Your task to perform on an android device: Search for sushi restaurants on Maps Image 0: 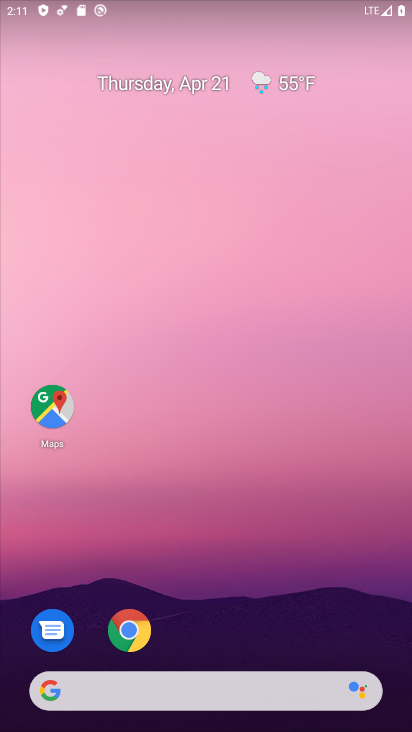
Step 0: click (217, 631)
Your task to perform on an android device: Search for sushi restaurants on Maps Image 1: 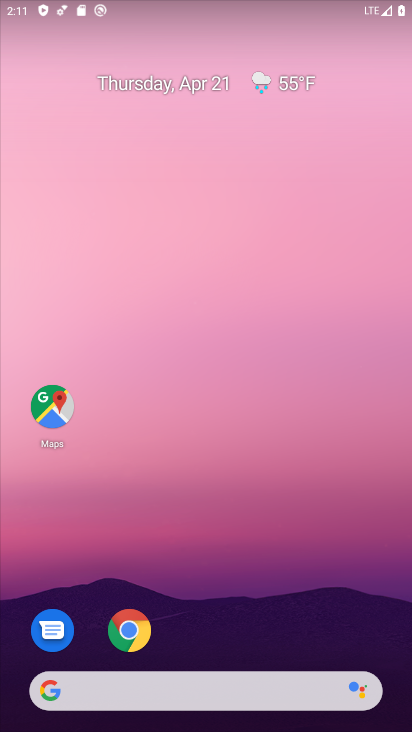
Step 1: click (61, 408)
Your task to perform on an android device: Search for sushi restaurants on Maps Image 2: 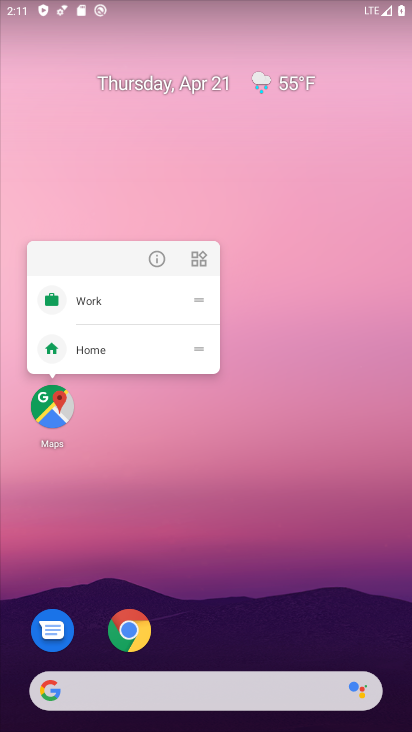
Step 2: click (55, 417)
Your task to perform on an android device: Search for sushi restaurants on Maps Image 3: 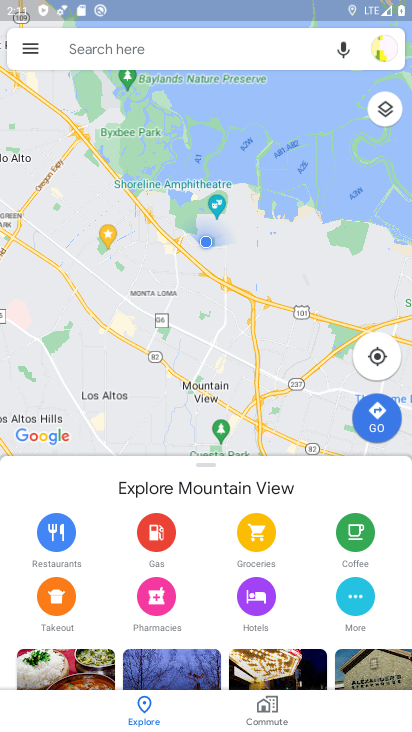
Step 3: click (217, 59)
Your task to perform on an android device: Search for sushi restaurants on Maps Image 4: 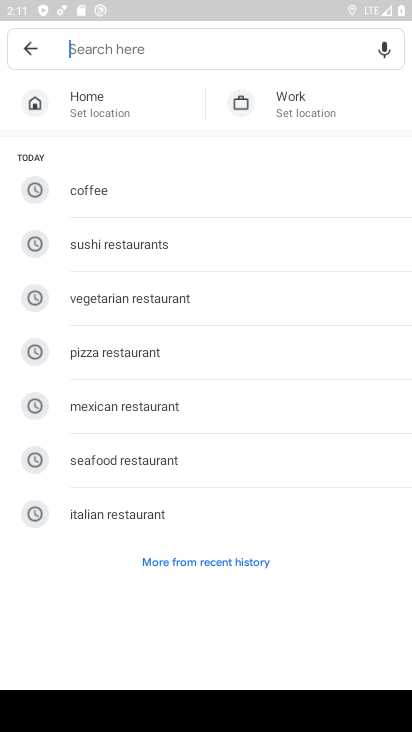
Step 4: click (143, 257)
Your task to perform on an android device: Search for sushi restaurants on Maps Image 5: 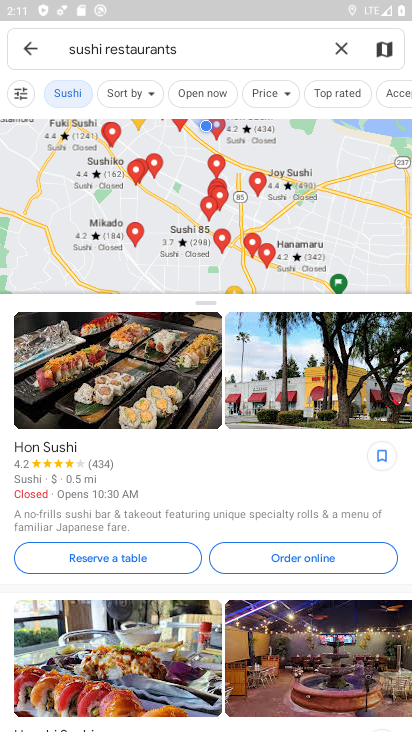
Step 5: task complete